Your task to perform on an android device: Go to internet settings Image 0: 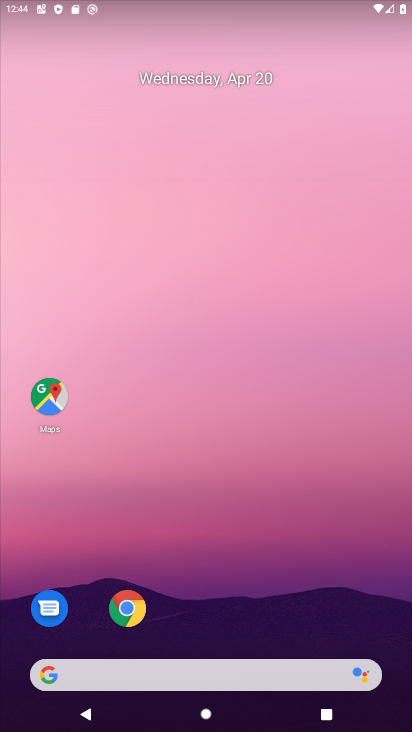
Step 0: drag from (352, 566) to (290, 235)
Your task to perform on an android device: Go to internet settings Image 1: 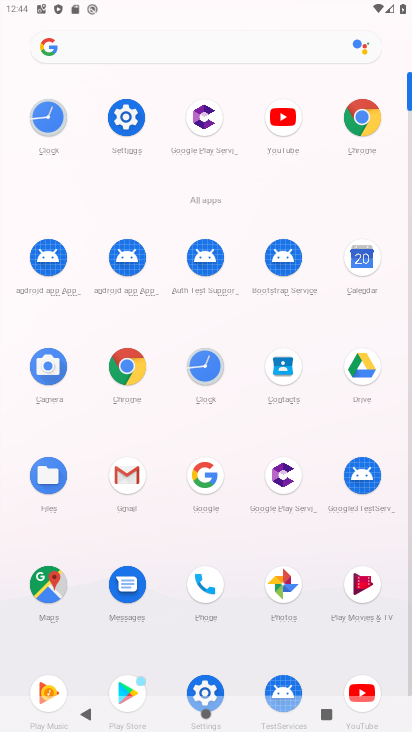
Step 1: click (121, 126)
Your task to perform on an android device: Go to internet settings Image 2: 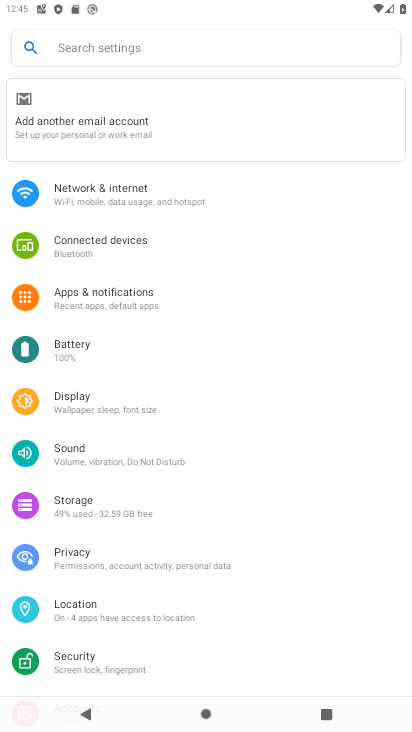
Step 2: click (152, 204)
Your task to perform on an android device: Go to internet settings Image 3: 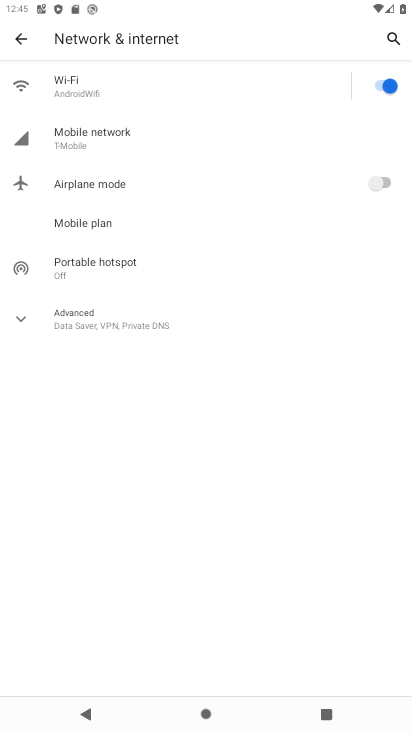
Step 3: task complete